Your task to perform on an android device: turn on location history Image 0: 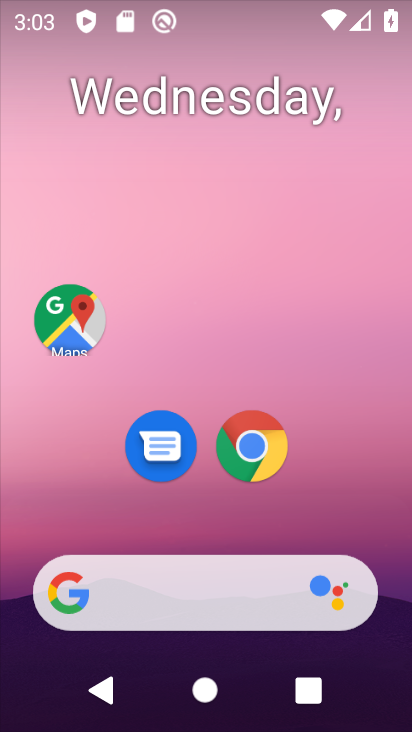
Step 0: drag from (205, 518) to (213, 81)
Your task to perform on an android device: turn on location history Image 1: 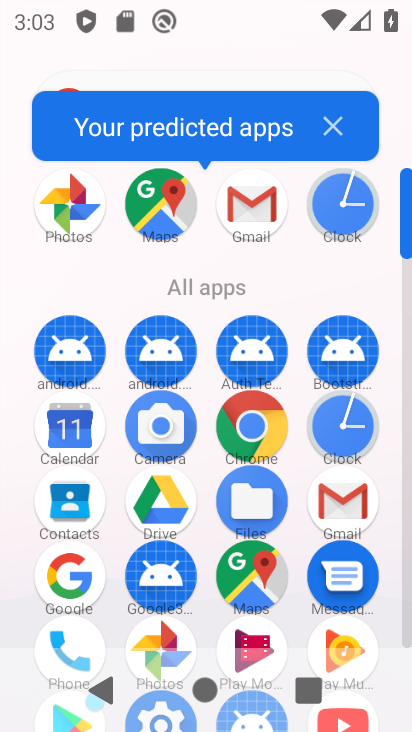
Step 1: drag from (118, 465) to (109, 58)
Your task to perform on an android device: turn on location history Image 2: 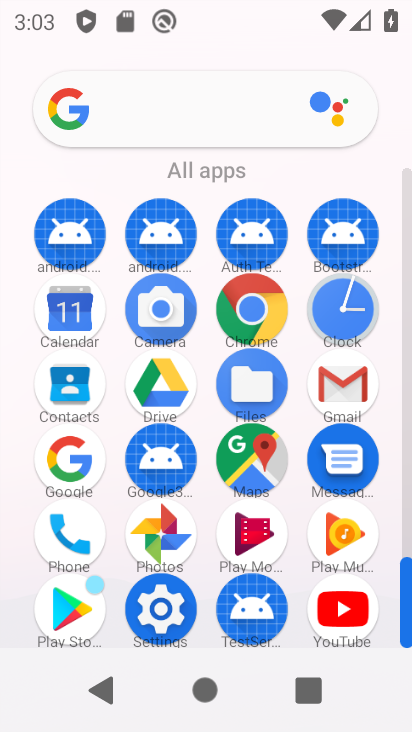
Step 2: click (163, 609)
Your task to perform on an android device: turn on location history Image 3: 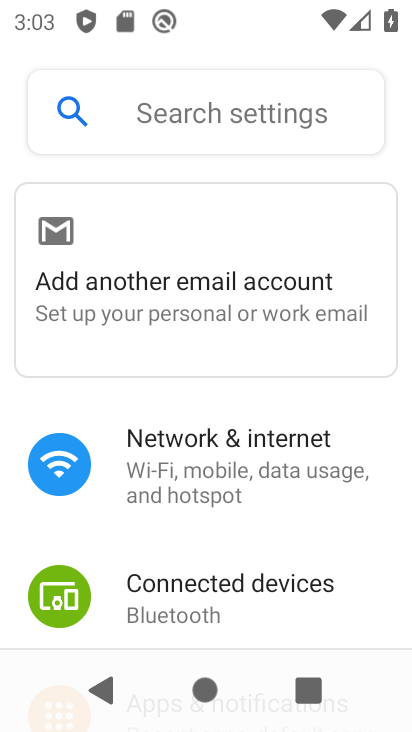
Step 3: drag from (269, 511) to (242, 148)
Your task to perform on an android device: turn on location history Image 4: 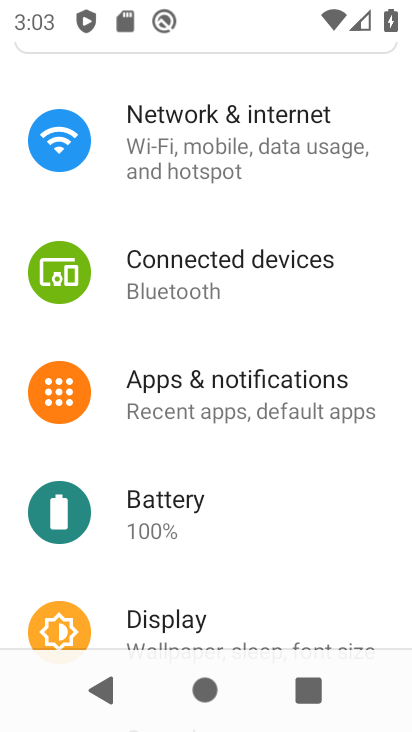
Step 4: drag from (255, 568) to (255, 169)
Your task to perform on an android device: turn on location history Image 5: 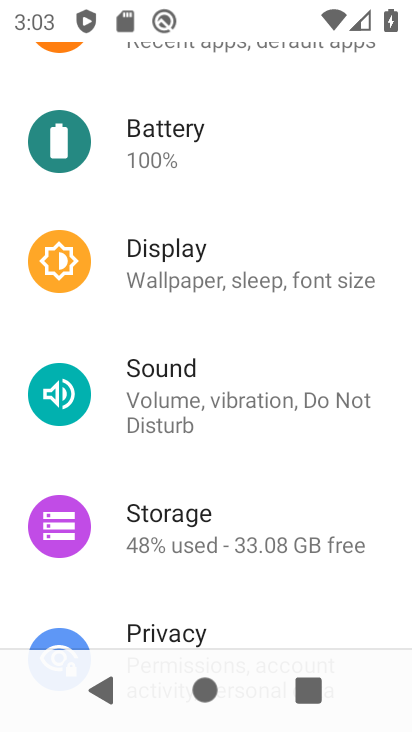
Step 5: drag from (241, 572) to (232, 164)
Your task to perform on an android device: turn on location history Image 6: 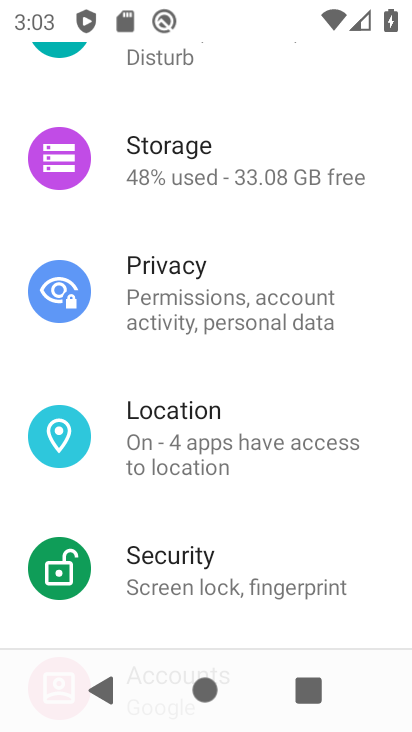
Step 6: click (215, 437)
Your task to perform on an android device: turn on location history Image 7: 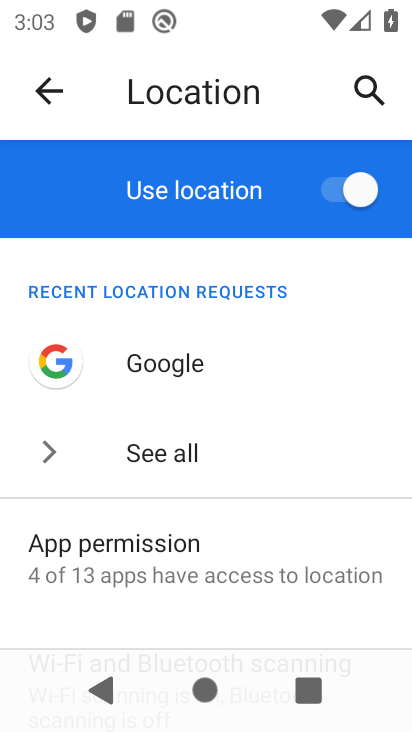
Step 7: drag from (284, 444) to (304, 1)
Your task to perform on an android device: turn on location history Image 8: 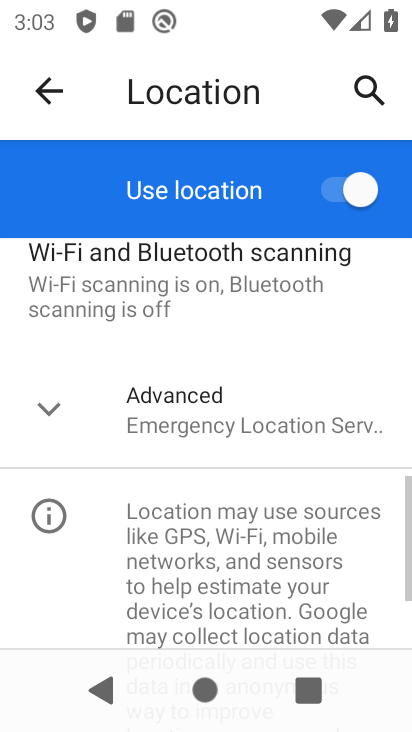
Step 8: click (210, 422)
Your task to perform on an android device: turn on location history Image 9: 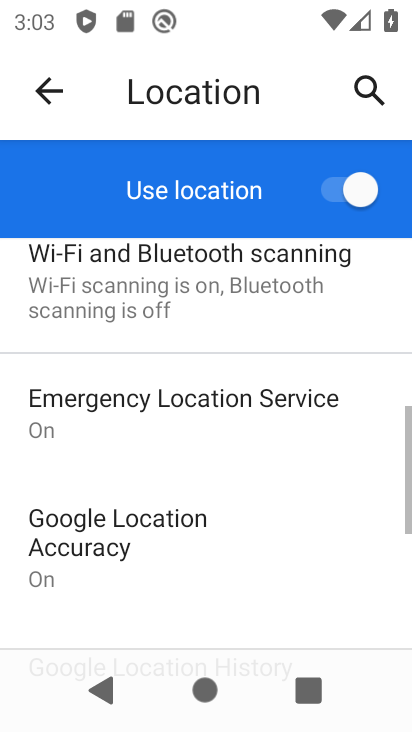
Step 9: drag from (281, 518) to (263, 296)
Your task to perform on an android device: turn on location history Image 10: 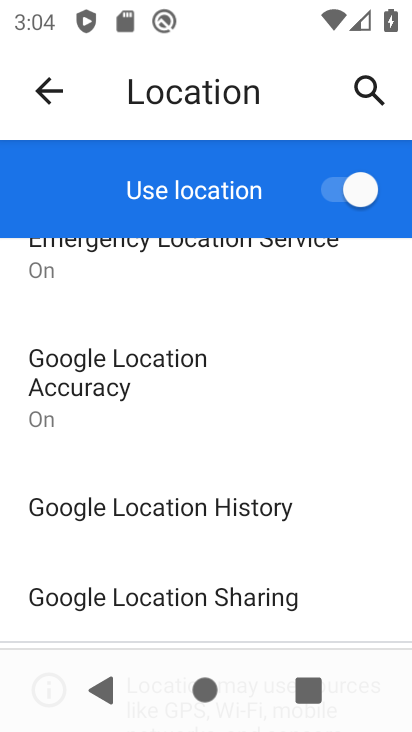
Step 10: click (180, 502)
Your task to perform on an android device: turn on location history Image 11: 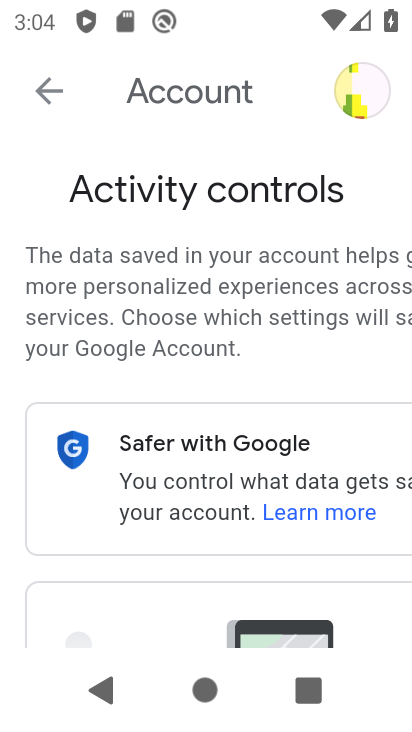
Step 11: task complete